Your task to perform on an android device: empty trash in google photos Image 0: 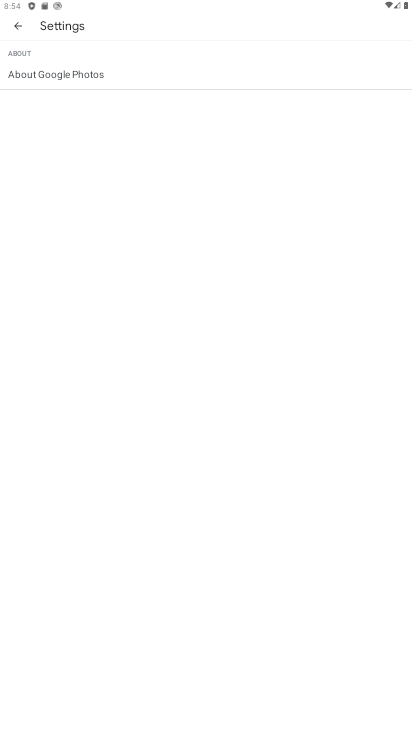
Step 0: press home button
Your task to perform on an android device: empty trash in google photos Image 1: 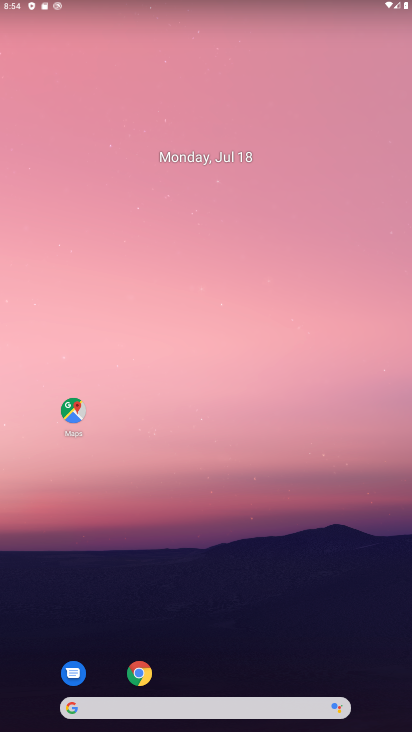
Step 1: drag from (207, 669) to (292, 72)
Your task to perform on an android device: empty trash in google photos Image 2: 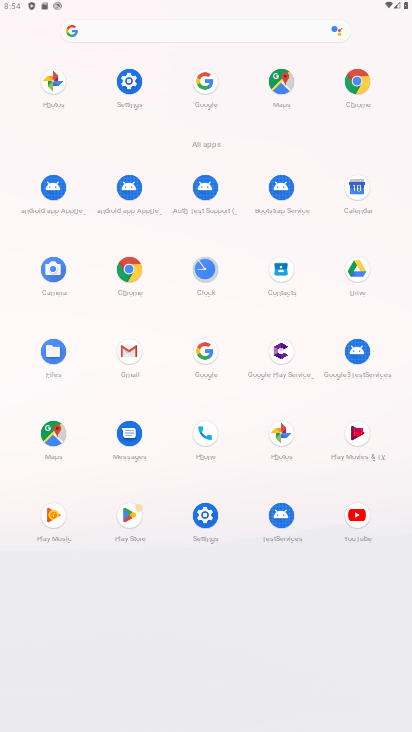
Step 2: click (290, 436)
Your task to perform on an android device: empty trash in google photos Image 3: 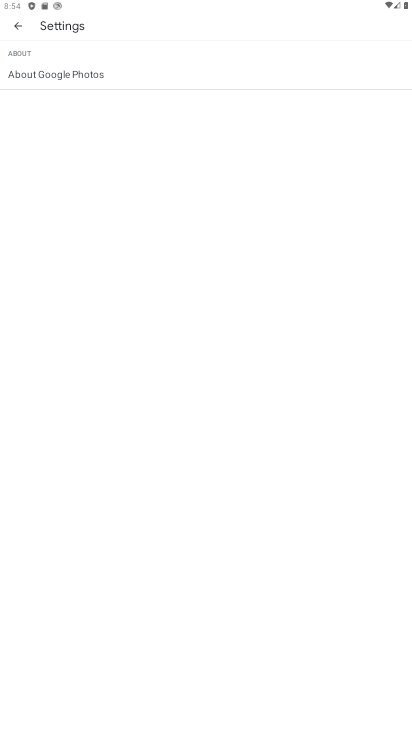
Step 3: press back button
Your task to perform on an android device: empty trash in google photos Image 4: 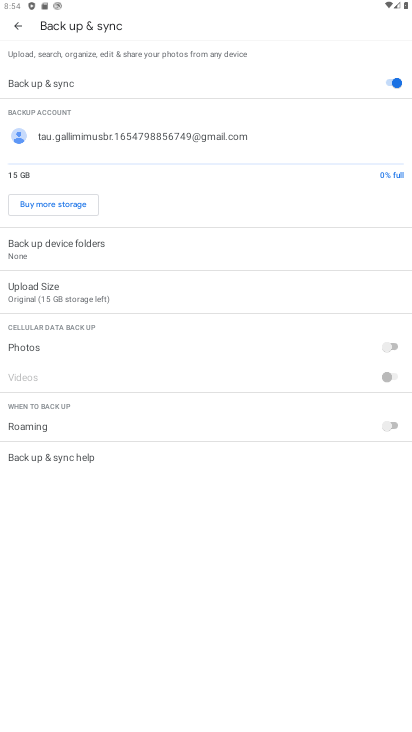
Step 4: press back button
Your task to perform on an android device: empty trash in google photos Image 5: 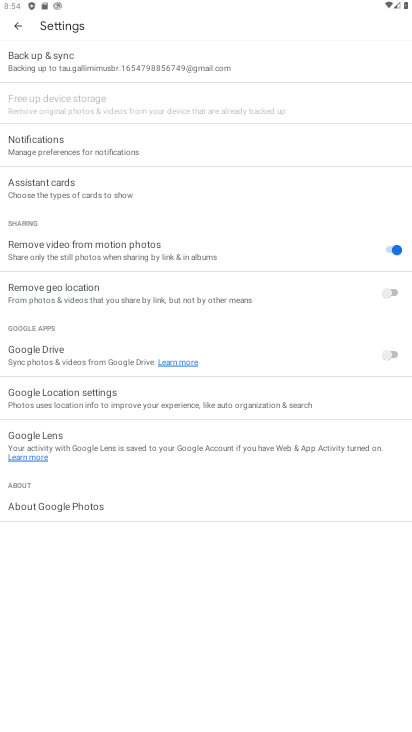
Step 5: press back button
Your task to perform on an android device: empty trash in google photos Image 6: 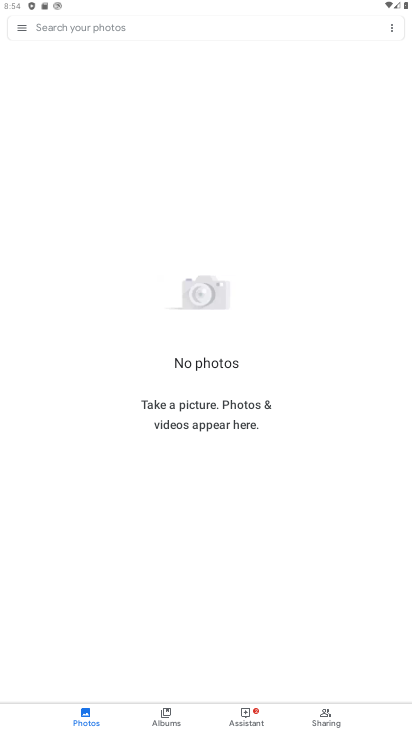
Step 6: click (28, 34)
Your task to perform on an android device: empty trash in google photos Image 7: 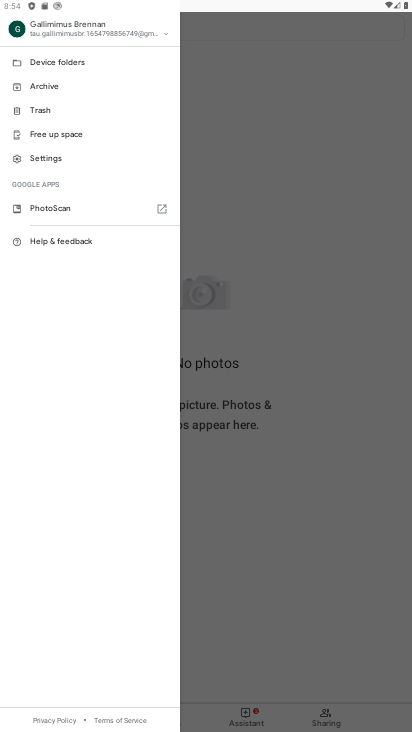
Step 7: click (79, 112)
Your task to perform on an android device: empty trash in google photos Image 8: 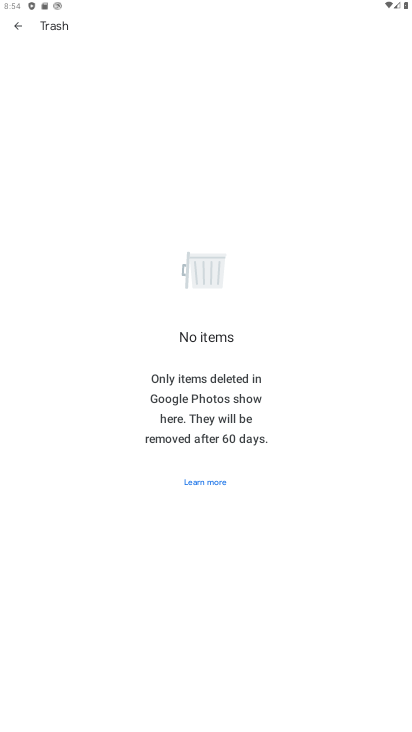
Step 8: task complete